Your task to perform on an android device: set the timer Image 0: 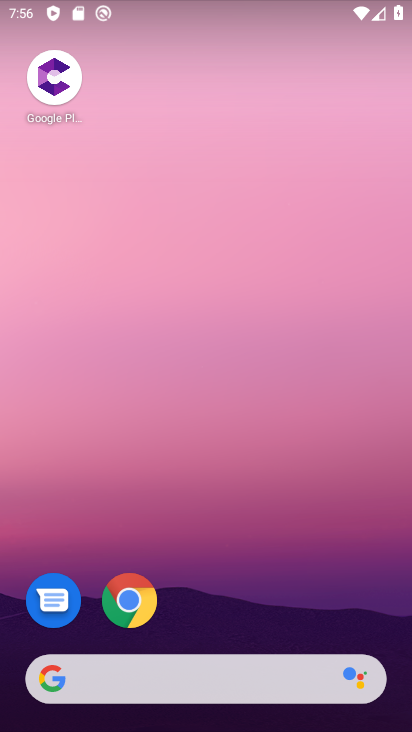
Step 0: drag from (357, 620) to (383, 205)
Your task to perform on an android device: set the timer Image 1: 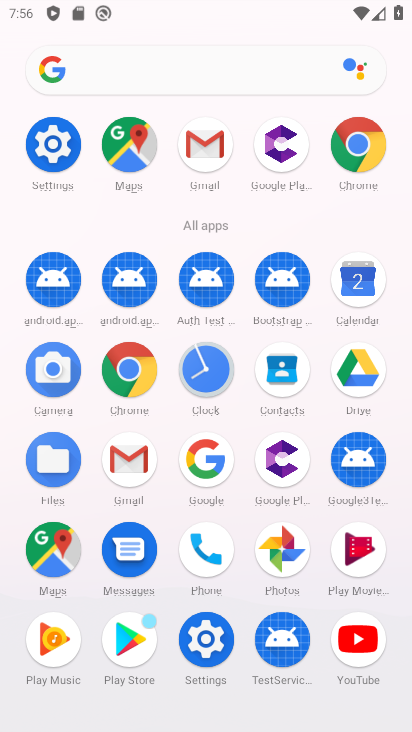
Step 1: click (214, 386)
Your task to perform on an android device: set the timer Image 2: 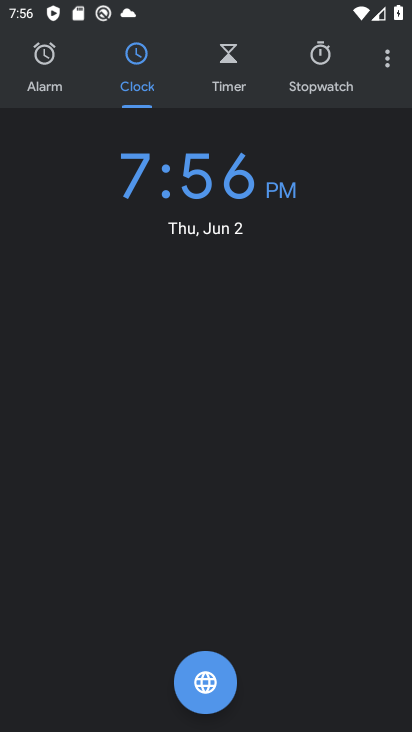
Step 2: click (231, 74)
Your task to perform on an android device: set the timer Image 3: 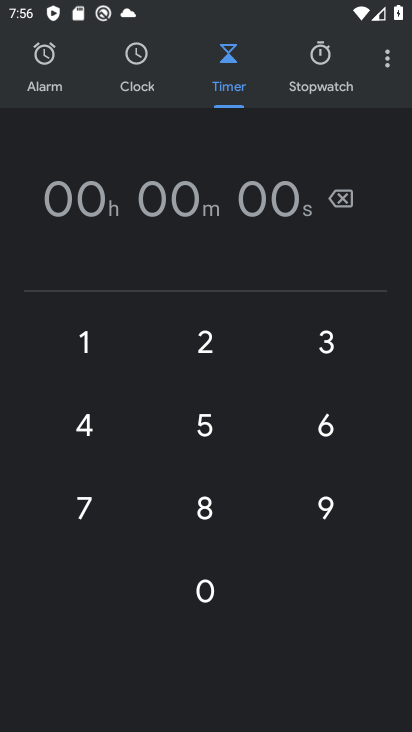
Step 3: click (214, 433)
Your task to perform on an android device: set the timer Image 4: 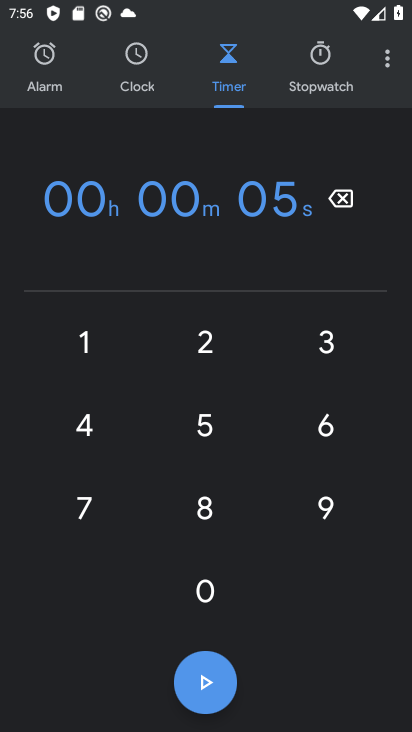
Step 4: task complete